Your task to perform on an android device: turn on sleep mode Image 0: 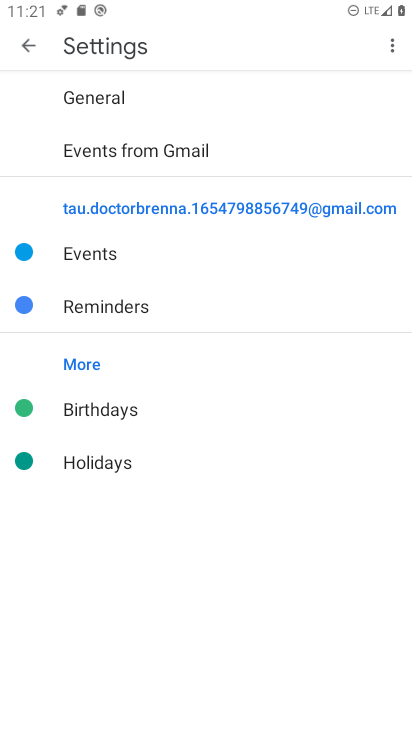
Step 0: press home button
Your task to perform on an android device: turn on sleep mode Image 1: 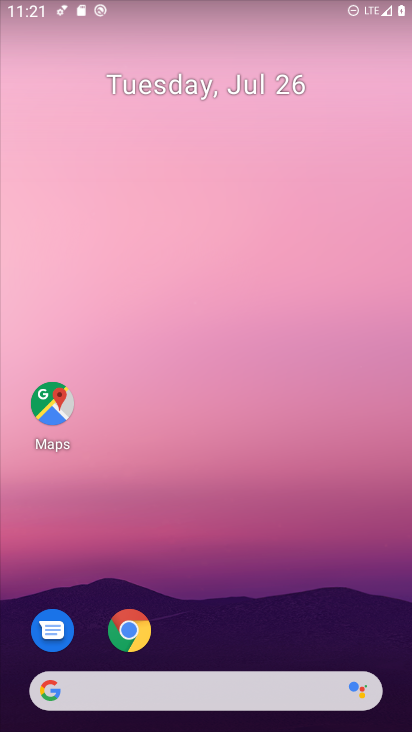
Step 1: drag from (387, 652) to (329, 170)
Your task to perform on an android device: turn on sleep mode Image 2: 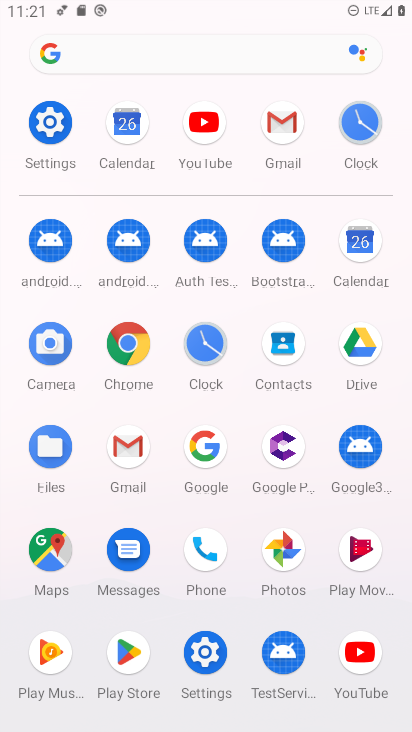
Step 2: click (205, 653)
Your task to perform on an android device: turn on sleep mode Image 3: 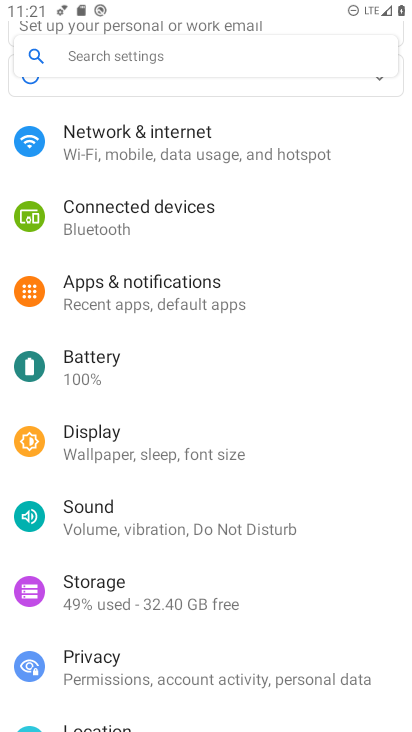
Step 3: click (94, 435)
Your task to perform on an android device: turn on sleep mode Image 4: 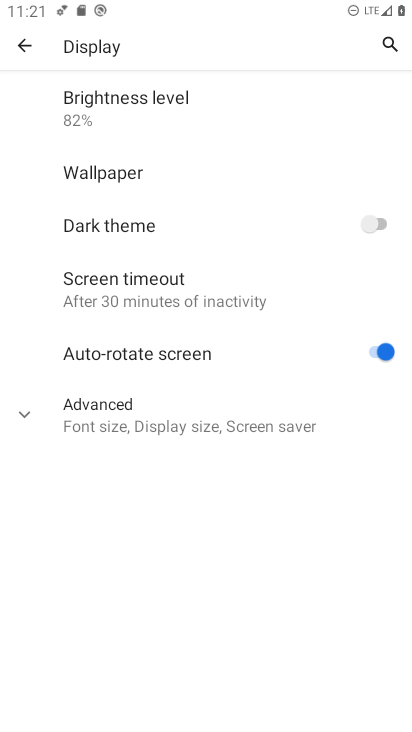
Step 4: click (27, 413)
Your task to perform on an android device: turn on sleep mode Image 5: 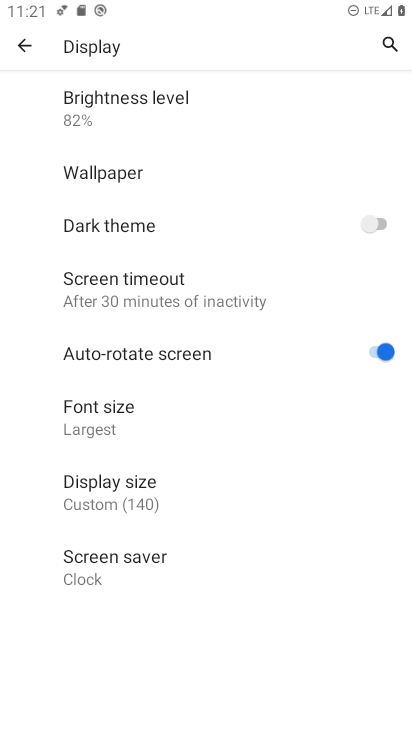
Step 5: task complete